Your task to perform on an android device: choose inbox layout in the gmail app Image 0: 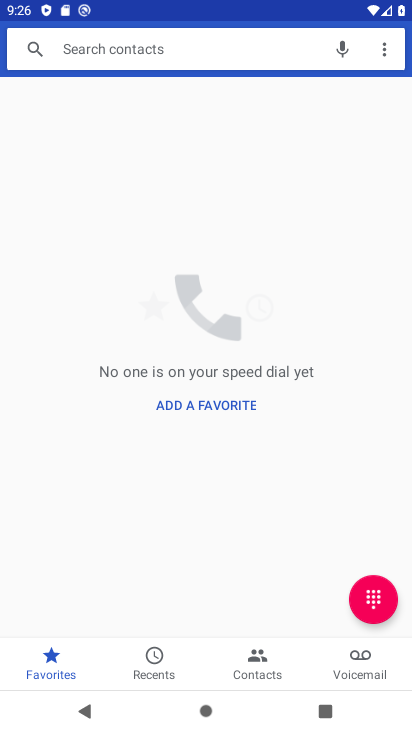
Step 0: press home button
Your task to perform on an android device: choose inbox layout in the gmail app Image 1: 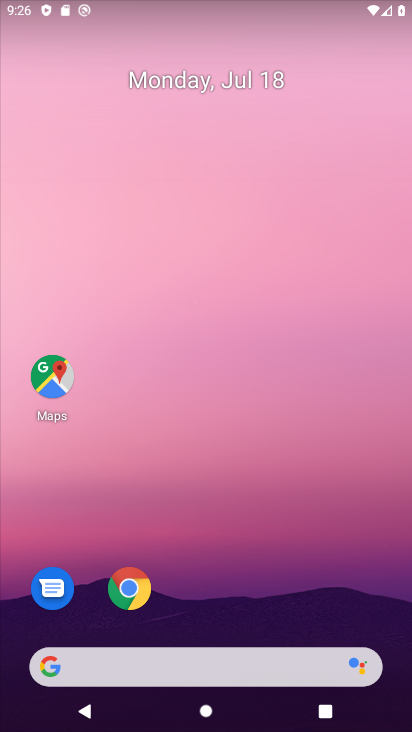
Step 1: drag from (224, 598) to (208, 1)
Your task to perform on an android device: choose inbox layout in the gmail app Image 2: 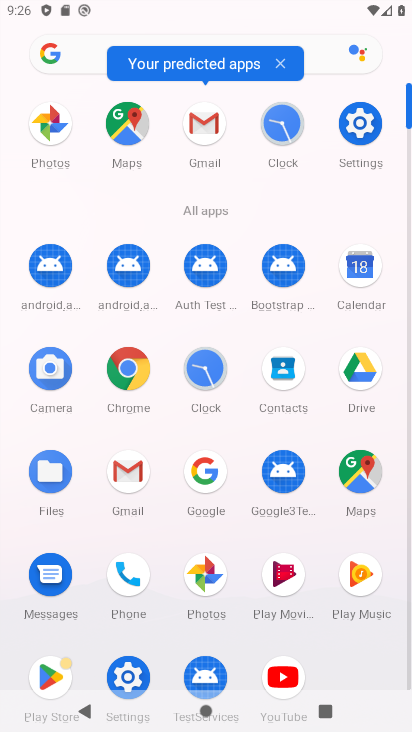
Step 2: click (205, 131)
Your task to perform on an android device: choose inbox layout in the gmail app Image 3: 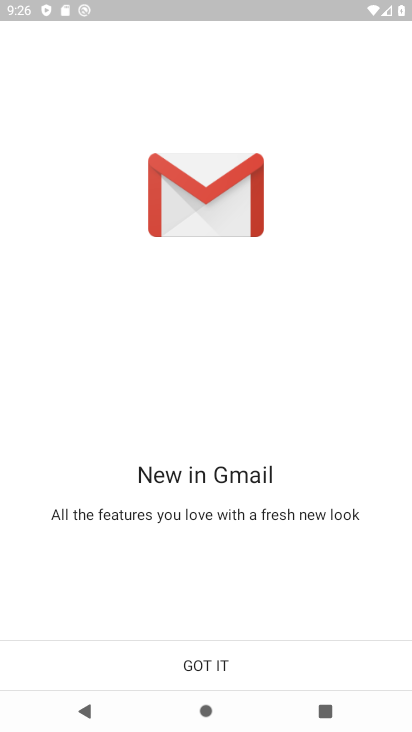
Step 3: click (235, 657)
Your task to perform on an android device: choose inbox layout in the gmail app Image 4: 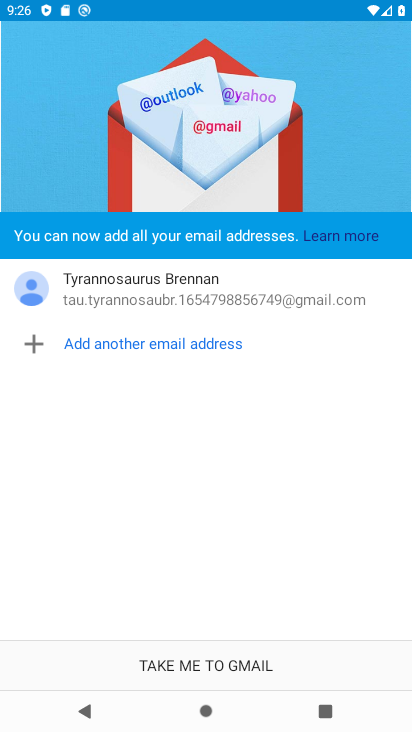
Step 4: click (246, 657)
Your task to perform on an android device: choose inbox layout in the gmail app Image 5: 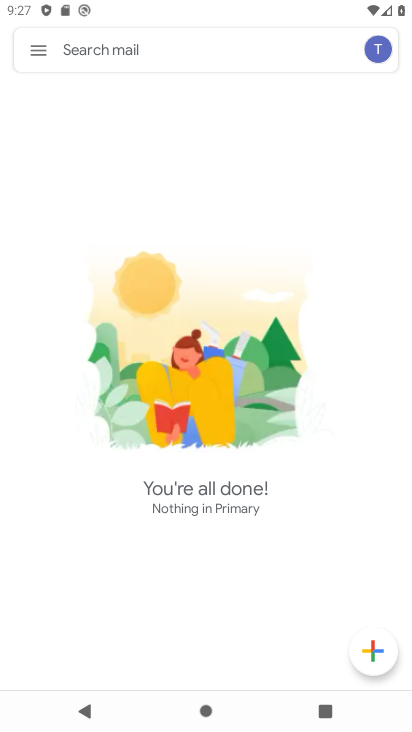
Step 5: click (37, 46)
Your task to perform on an android device: choose inbox layout in the gmail app Image 6: 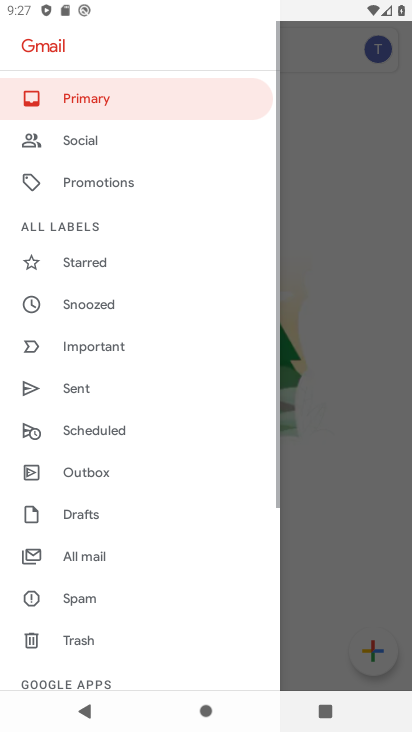
Step 6: drag from (206, 559) to (158, 33)
Your task to perform on an android device: choose inbox layout in the gmail app Image 7: 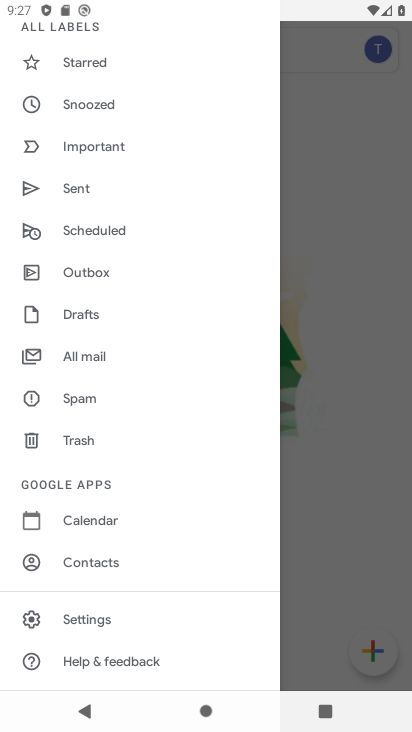
Step 7: click (93, 623)
Your task to perform on an android device: choose inbox layout in the gmail app Image 8: 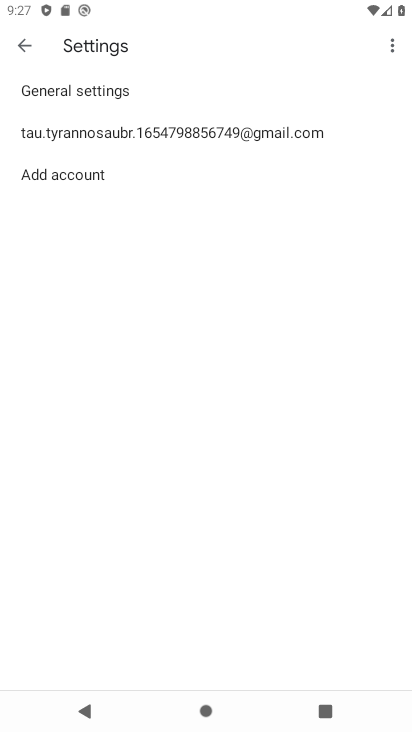
Step 8: click (175, 130)
Your task to perform on an android device: choose inbox layout in the gmail app Image 9: 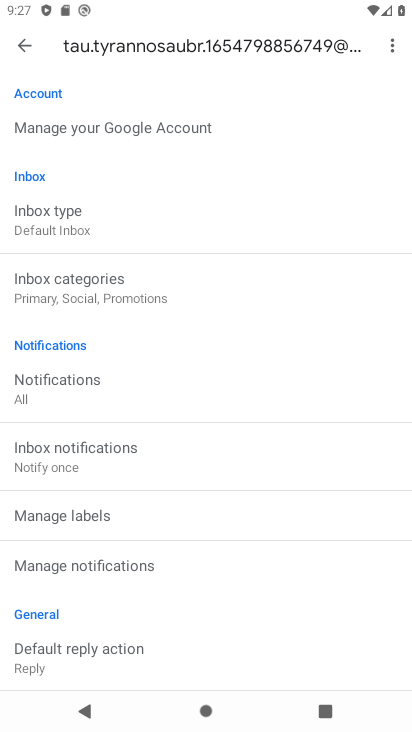
Step 9: click (112, 226)
Your task to perform on an android device: choose inbox layout in the gmail app Image 10: 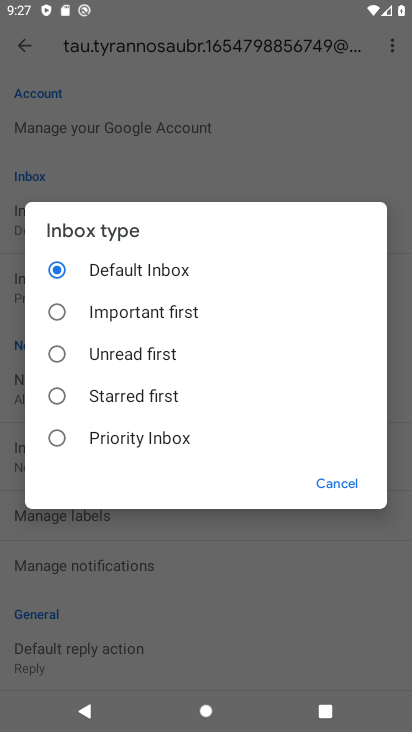
Step 10: click (150, 396)
Your task to perform on an android device: choose inbox layout in the gmail app Image 11: 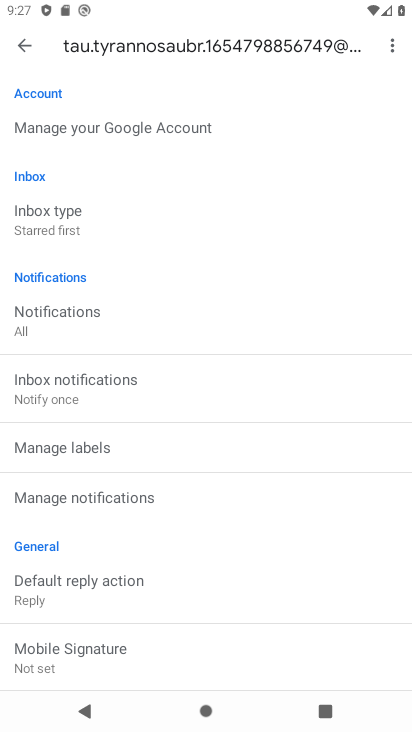
Step 11: task complete